Your task to perform on an android device: set an alarm Image 0: 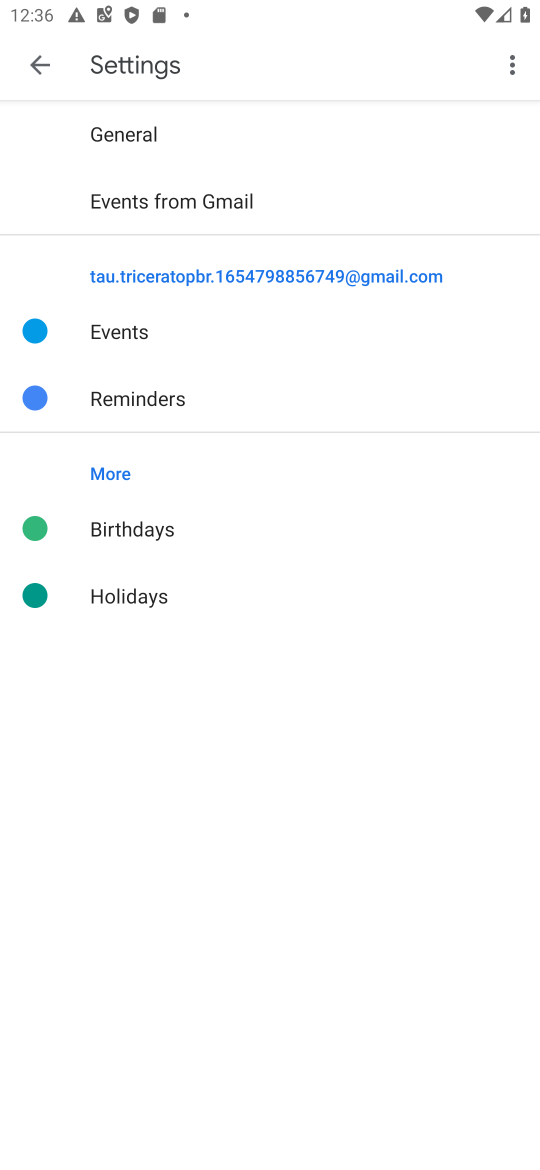
Step 0: press home button
Your task to perform on an android device: set an alarm Image 1: 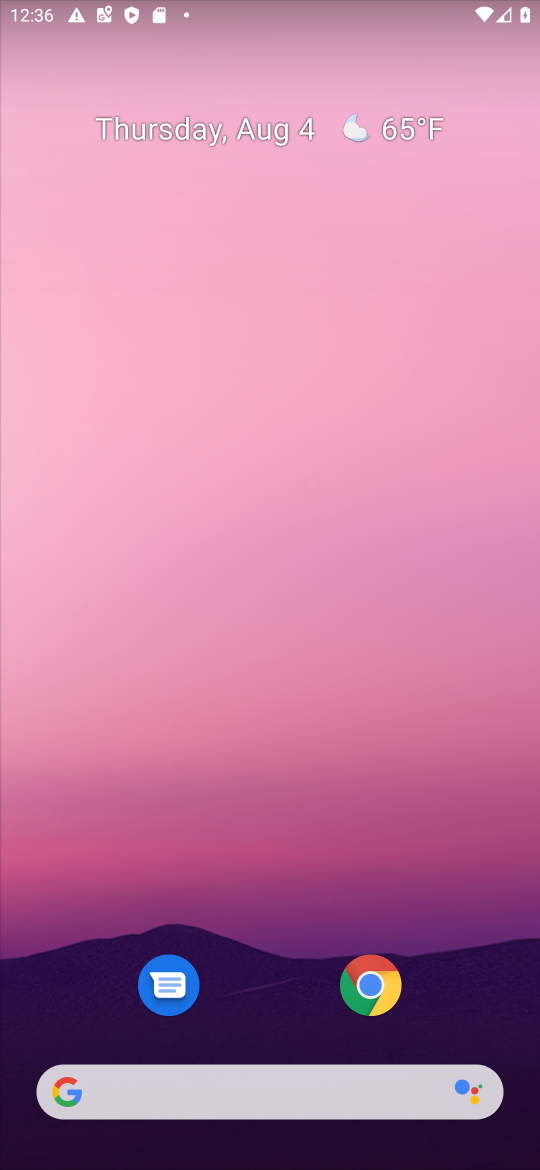
Step 1: drag from (261, 842) to (259, 73)
Your task to perform on an android device: set an alarm Image 2: 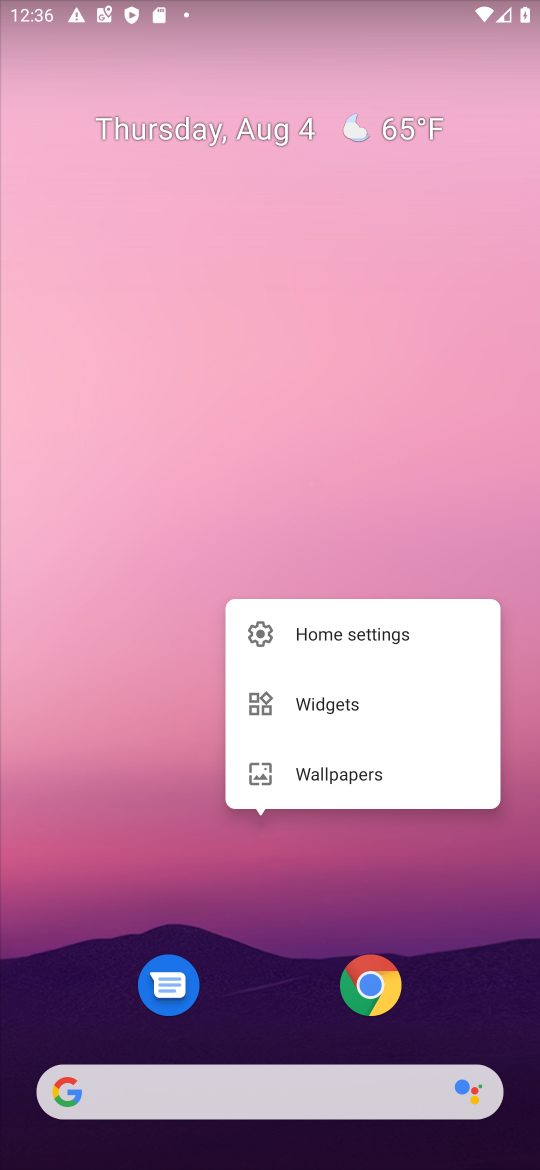
Step 2: click (141, 551)
Your task to perform on an android device: set an alarm Image 3: 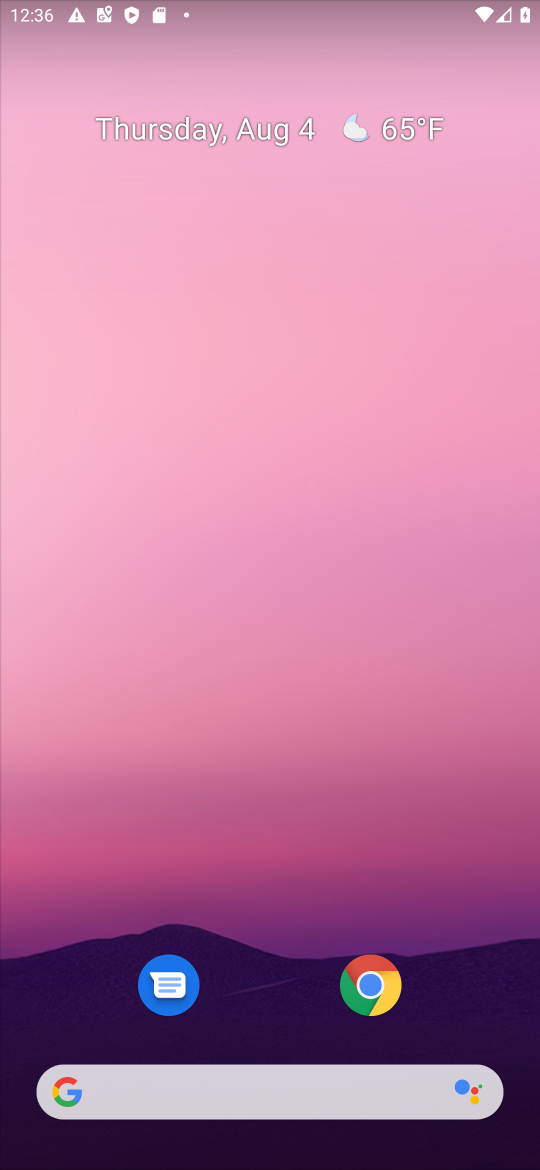
Step 3: drag from (258, 940) to (297, 239)
Your task to perform on an android device: set an alarm Image 4: 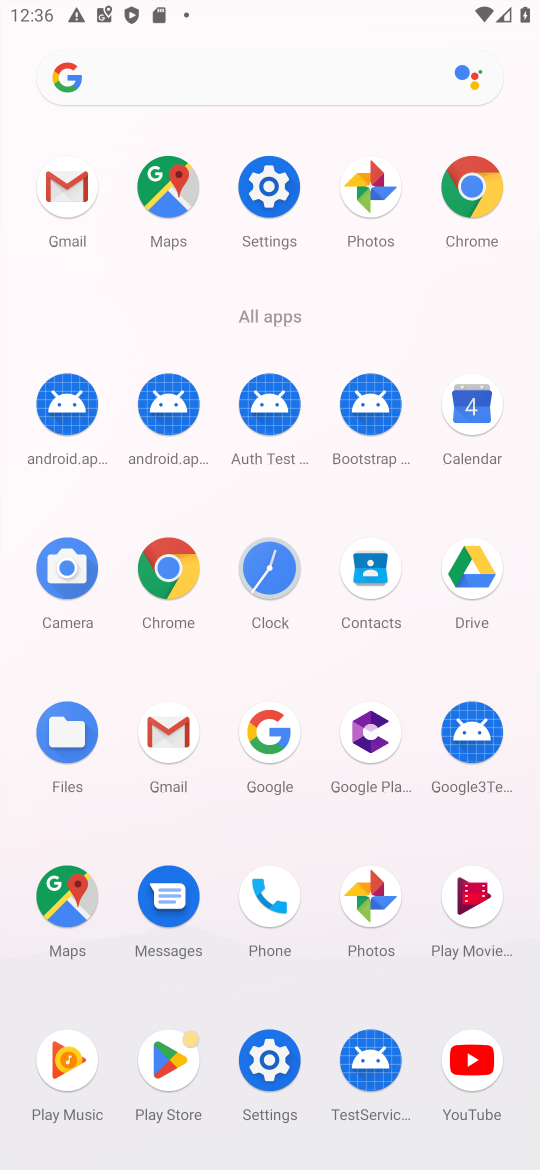
Step 4: click (273, 568)
Your task to perform on an android device: set an alarm Image 5: 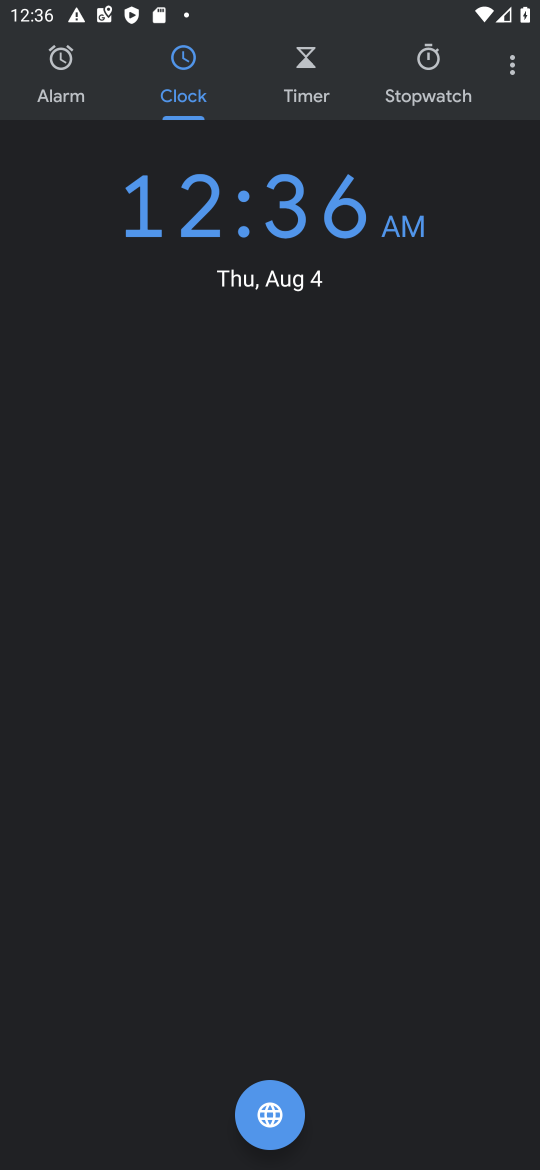
Step 5: click (58, 53)
Your task to perform on an android device: set an alarm Image 6: 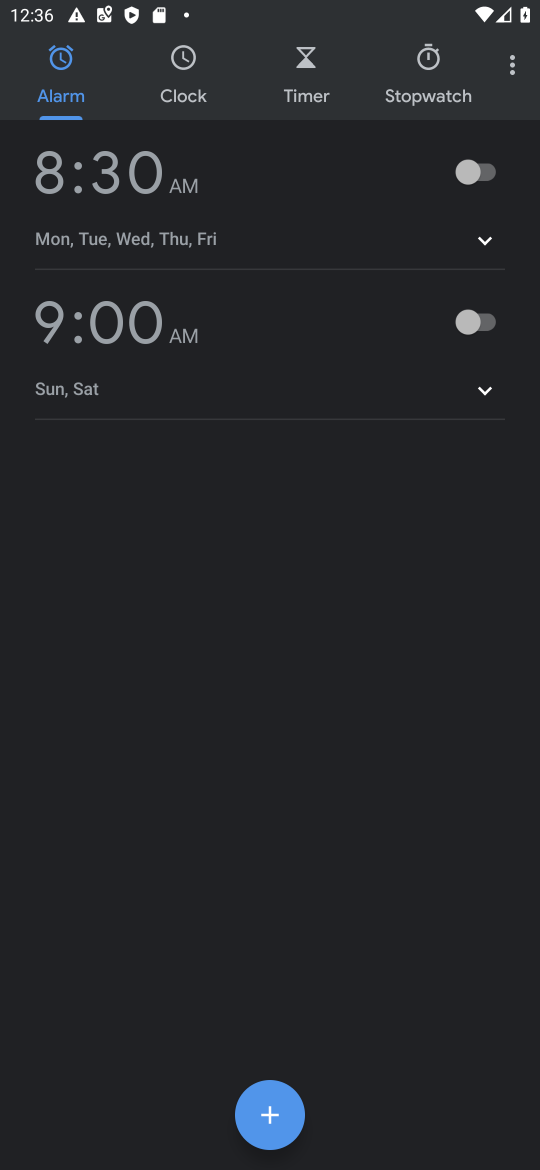
Step 6: click (272, 1118)
Your task to perform on an android device: set an alarm Image 7: 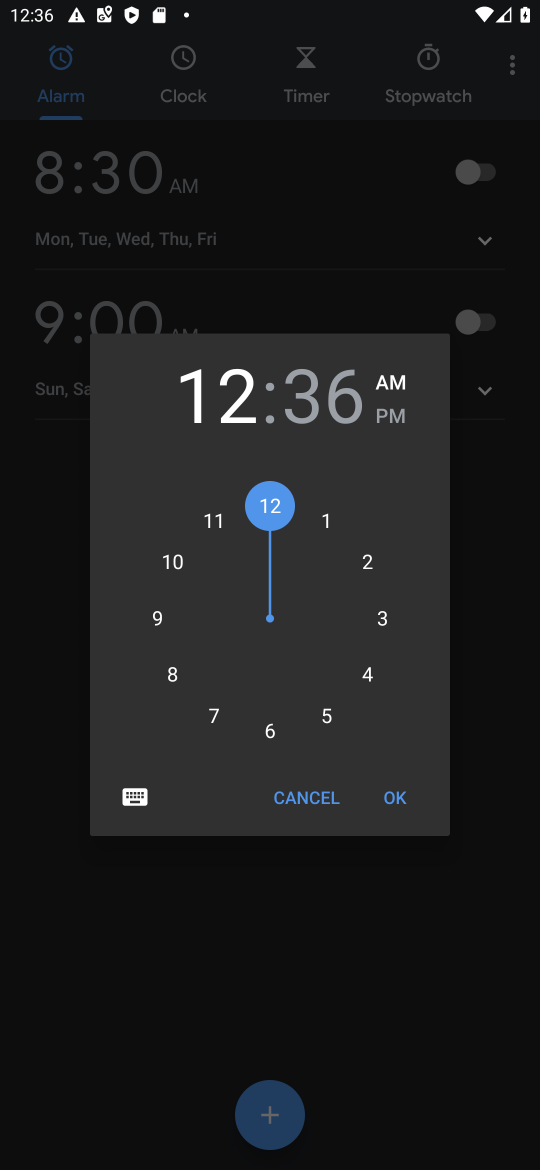
Step 7: click (397, 795)
Your task to perform on an android device: set an alarm Image 8: 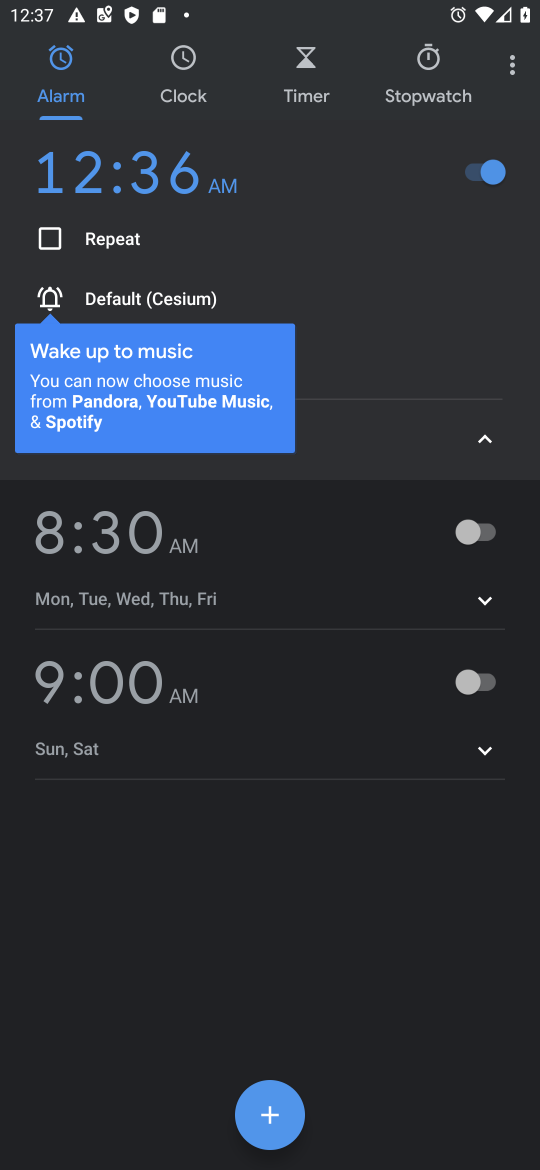
Step 8: task complete